Your task to perform on an android device: Open battery settings Image 0: 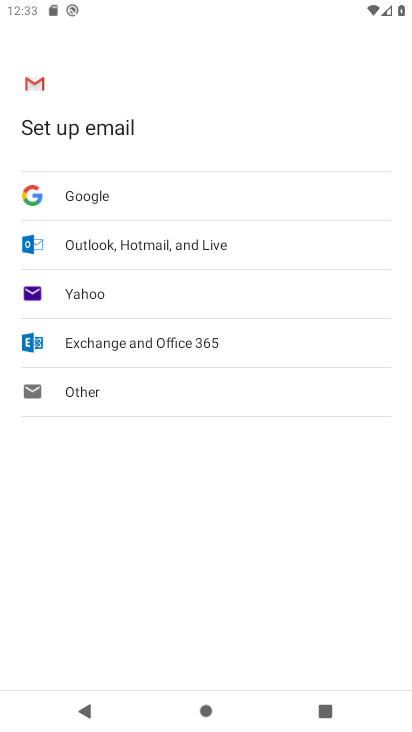
Step 0: press home button
Your task to perform on an android device: Open battery settings Image 1: 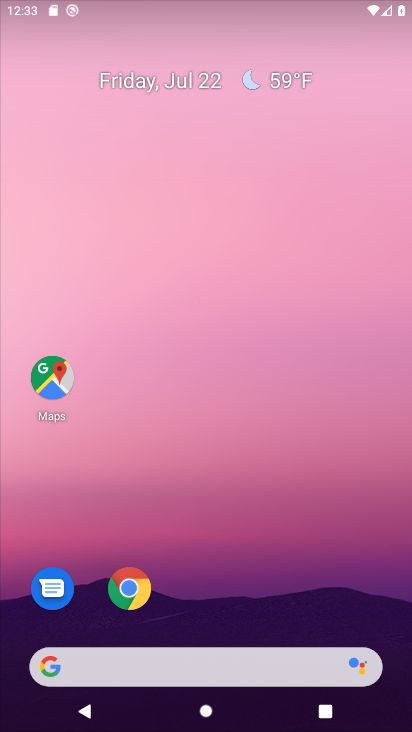
Step 1: drag from (248, 647) to (248, 86)
Your task to perform on an android device: Open battery settings Image 2: 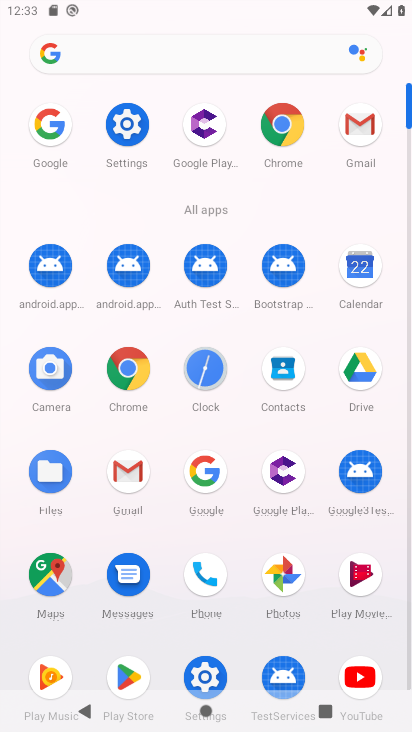
Step 2: click (118, 120)
Your task to perform on an android device: Open battery settings Image 3: 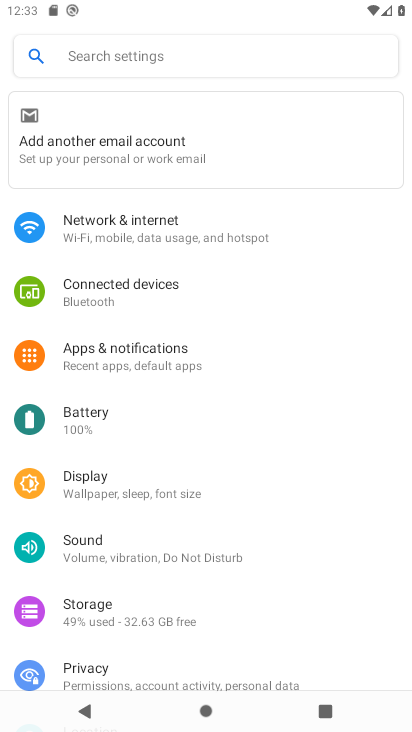
Step 3: click (91, 421)
Your task to perform on an android device: Open battery settings Image 4: 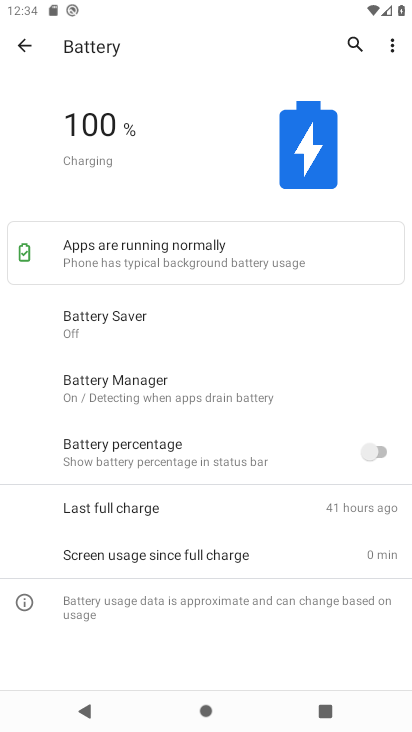
Step 4: task complete